Your task to perform on an android device: Go to internet settings Image 0: 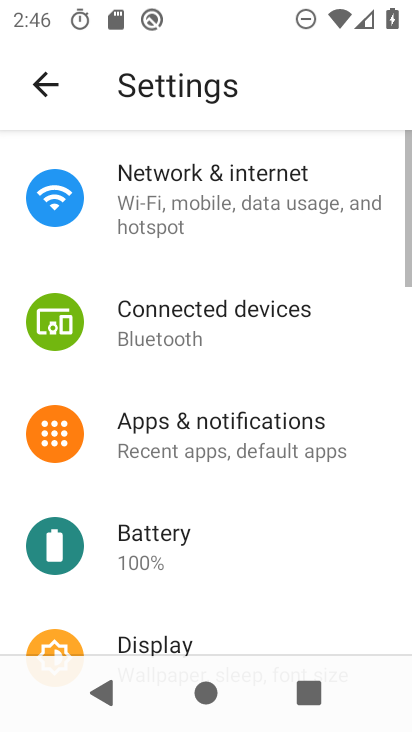
Step 0: press home button
Your task to perform on an android device: Go to internet settings Image 1: 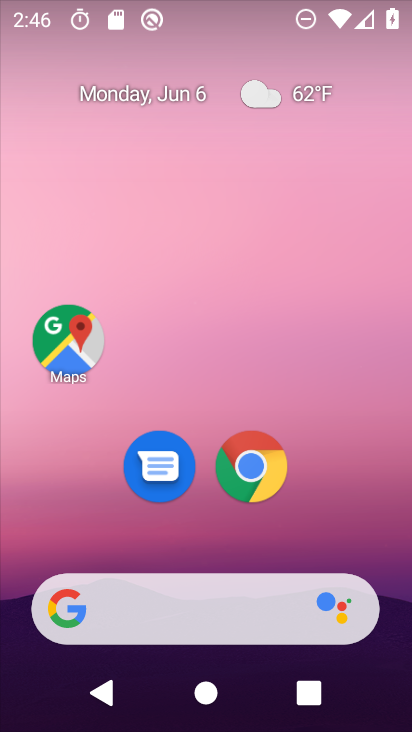
Step 1: drag from (198, 554) to (210, 35)
Your task to perform on an android device: Go to internet settings Image 2: 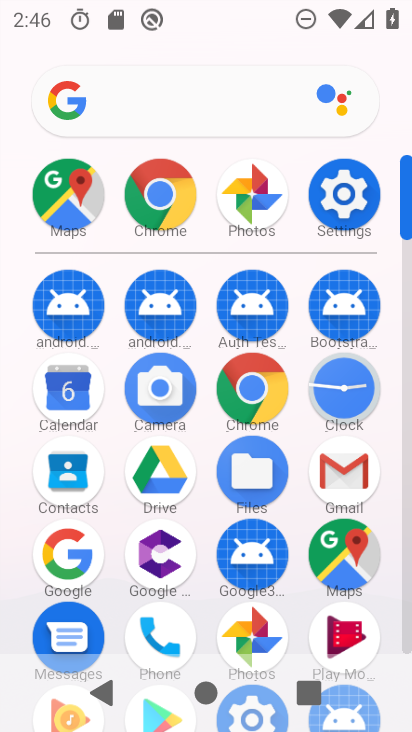
Step 2: click (335, 205)
Your task to perform on an android device: Go to internet settings Image 3: 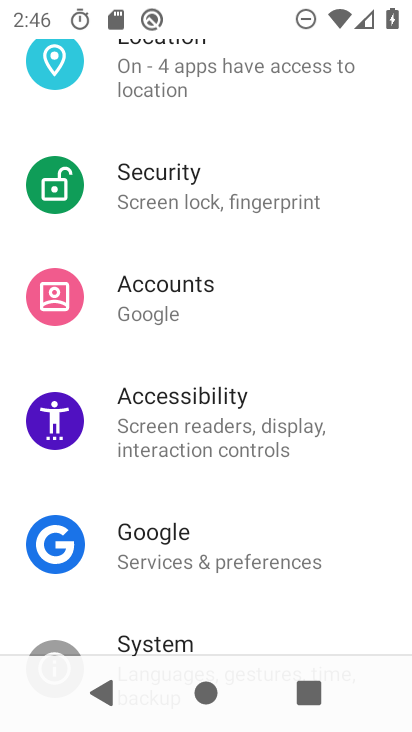
Step 3: drag from (290, 194) to (253, 645)
Your task to perform on an android device: Go to internet settings Image 4: 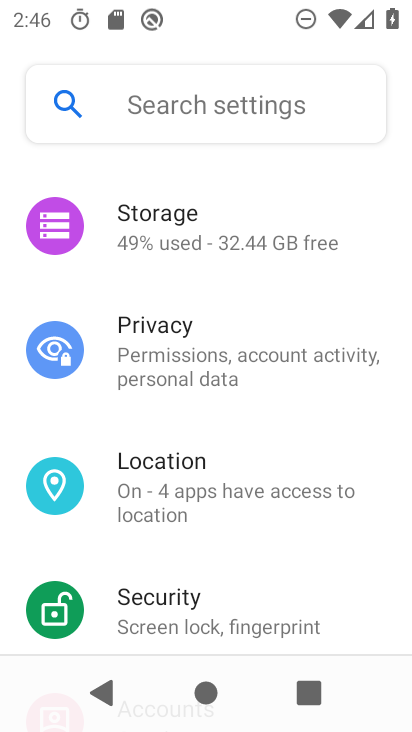
Step 4: drag from (199, 291) to (176, 677)
Your task to perform on an android device: Go to internet settings Image 5: 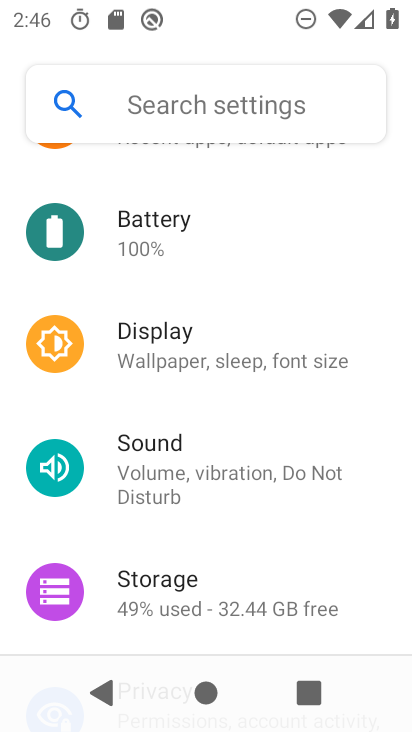
Step 5: drag from (252, 242) to (225, 628)
Your task to perform on an android device: Go to internet settings Image 6: 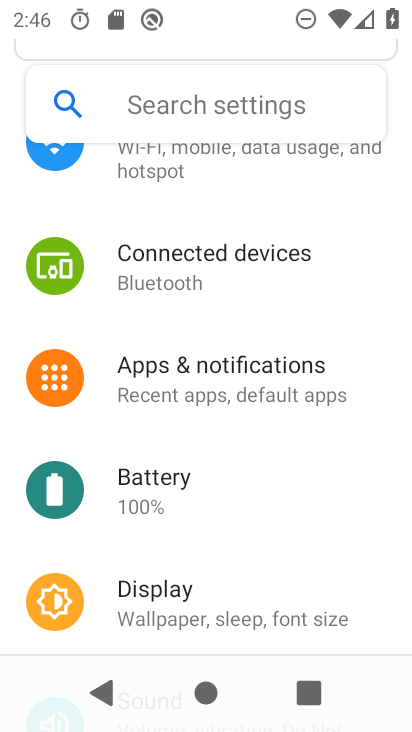
Step 6: drag from (244, 219) to (242, 446)
Your task to perform on an android device: Go to internet settings Image 7: 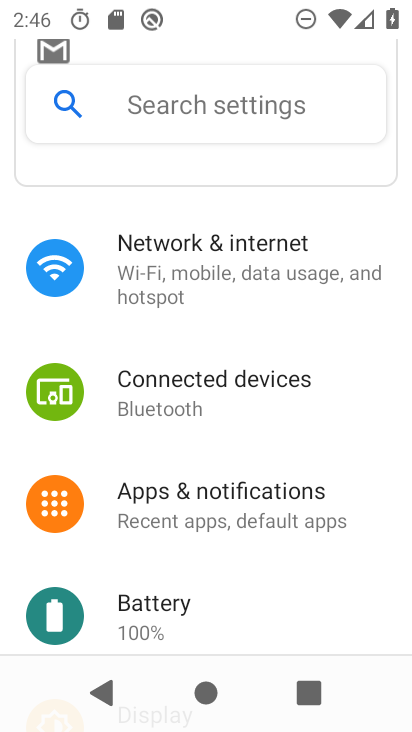
Step 7: click (180, 273)
Your task to perform on an android device: Go to internet settings Image 8: 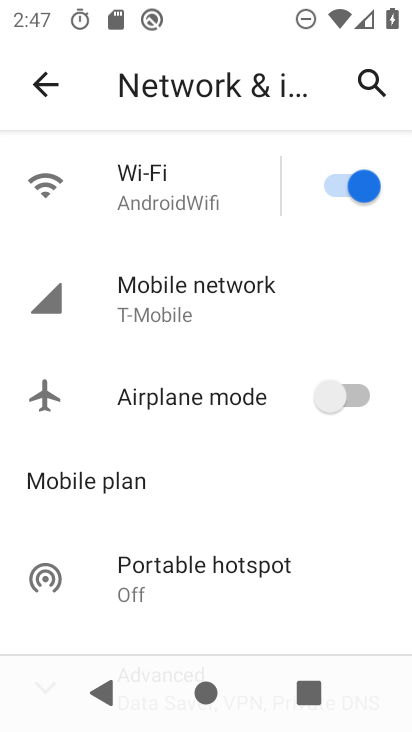
Step 8: task complete